Your task to perform on an android device: toggle location history Image 0: 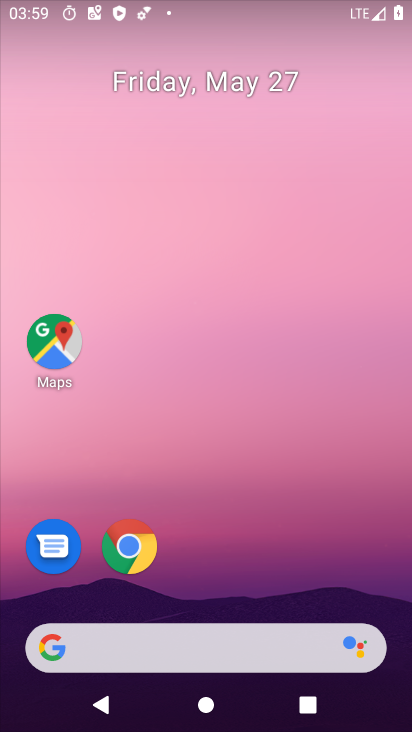
Step 0: drag from (394, 693) to (361, 373)
Your task to perform on an android device: toggle location history Image 1: 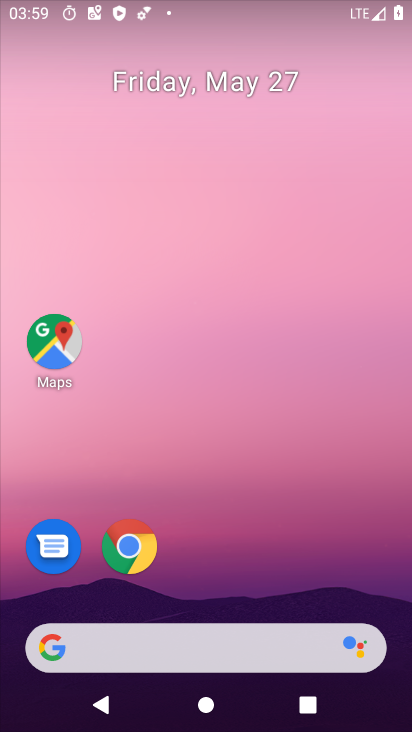
Step 1: drag from (397, 685) to (350, 116)
Your task to perform on an android device: toggle location history Image 2: 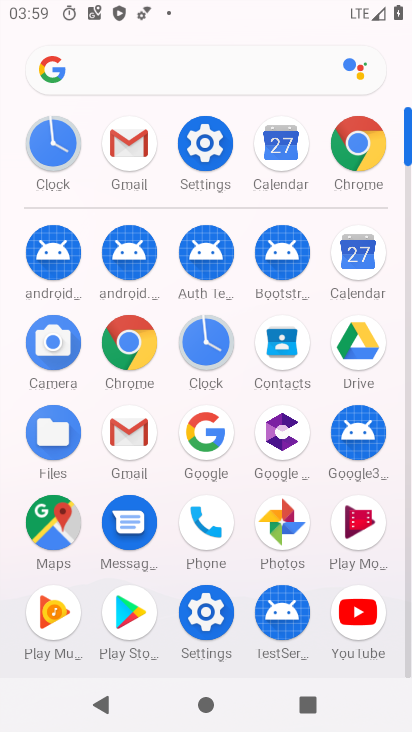
Step 2: click (203, 157)
Your task to perform on an android device: toggle location history Image 3: 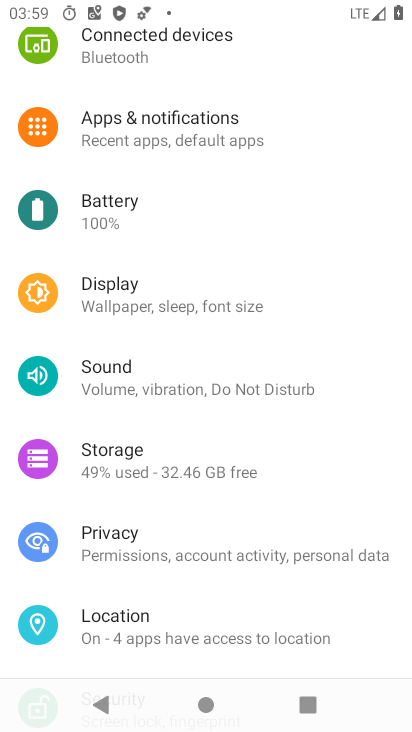
Step 3: click (109, 621)
Your task to perform on an android device: toggle location history Image 4: 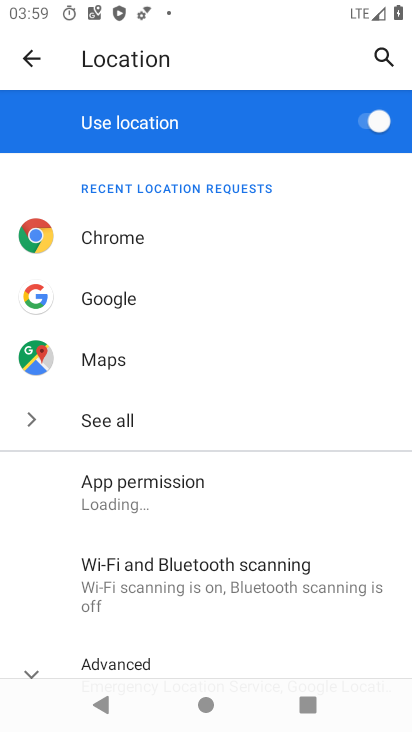
Step 4: click (35, 671)
Your task to perform on an android device: toggle location history Image 5: 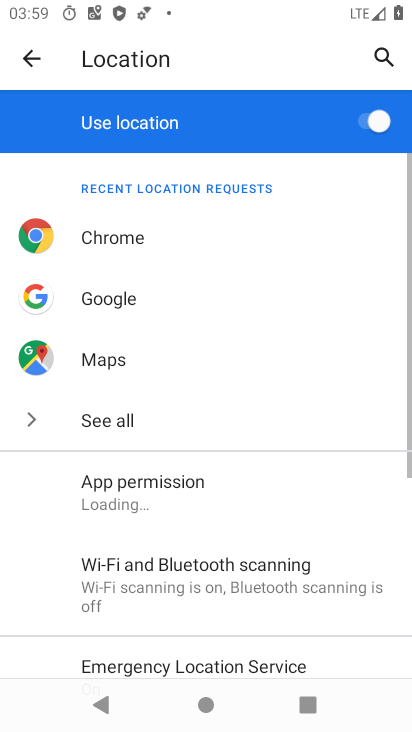
Step 5: drag from (275, 561) to (276, 246)
Your task to perform on an android device: toggle location history Image 6: 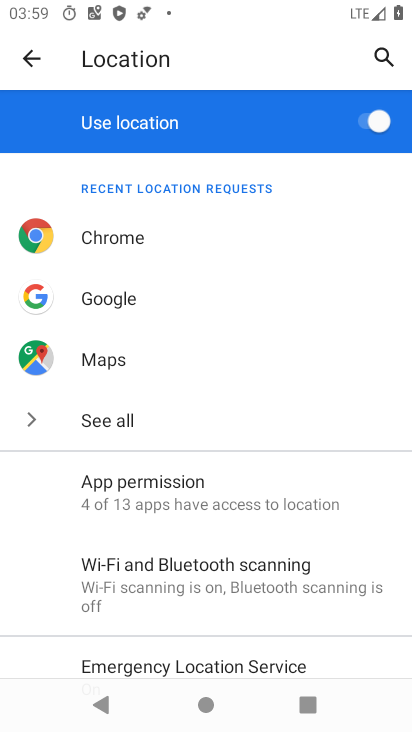
Step 6: drag from (338, 653) to (331, 289)
Your task to perform on an android device: toggle location history Image 7: 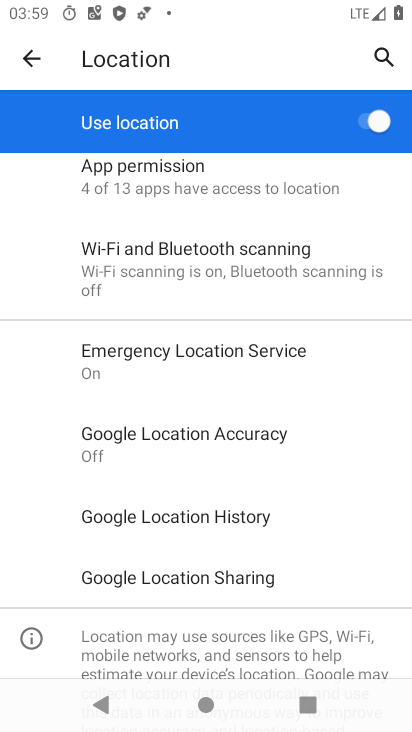
Step 7: click (127, 519)
Your task to perform on an android device: toggle location history Image 8: 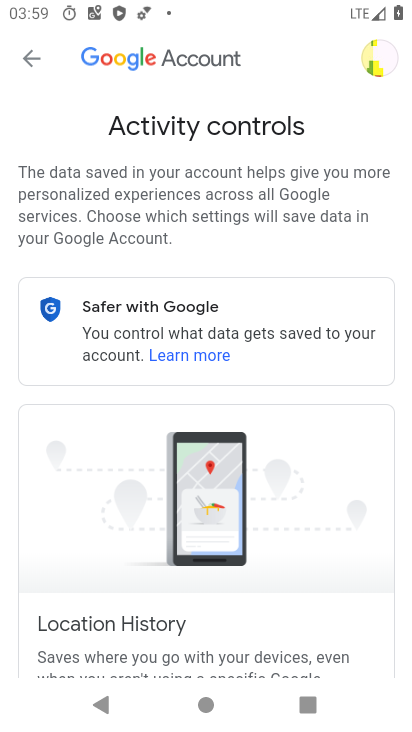
Step 8: drag from (282, 633) to (272, 246)
Your task to perform on an android device: toggle location history Image 9: 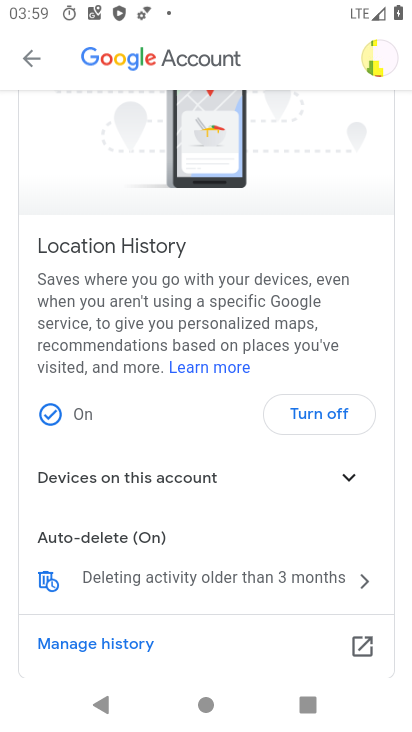
Step 9: drag from (238, 636) to (254, 327)
Your task to perform on an android device: toggle location history Image 10: 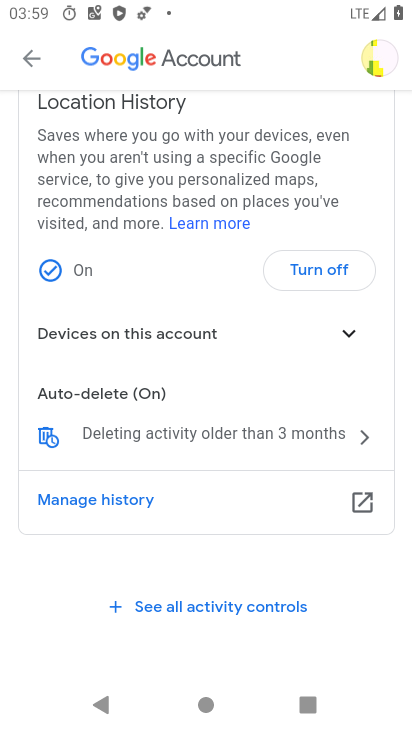
Step 10: click (312, 265)
Your task to perform on an android device: toggle location history Image 11: 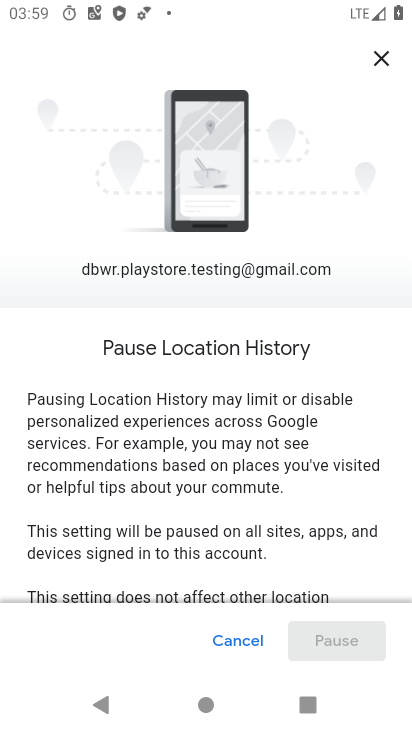
Step 11: drag from (214, 584) to (219, 301)
Your task to perform on an android device: toggle location history Image 12: 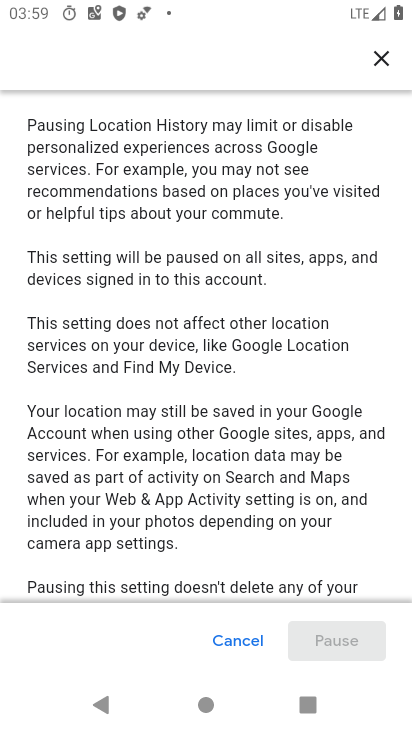
Step 12: drag from (220, 568) to (242, 245)
Your task to perform on an android device: toggle location history Image 13: 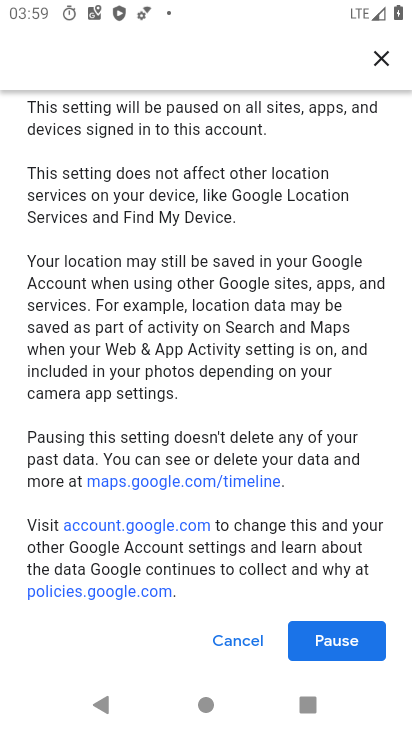
Step 13: click (312, 632)
Your task to perform on an android device: toggle location history Image 14: 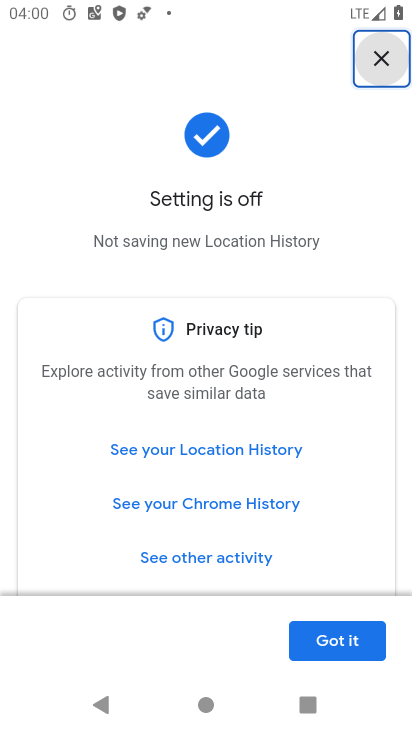
Step 14: click (327, 637)
Your task to perform on an android device: toggle location history Image 15: 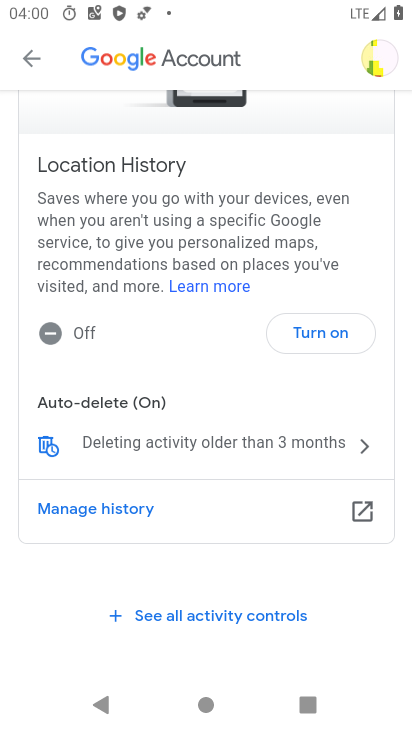
Step 15: task complete